Your task to perform on an android device: Set the phone to "Do not disturb". Image 0: 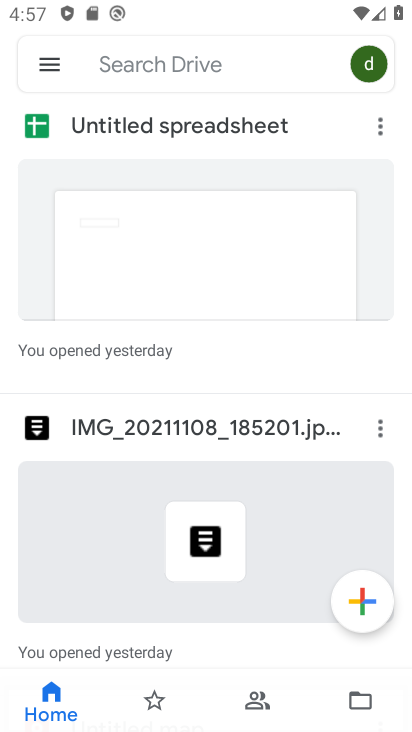
Step 0: press home button
Your task to perform on an android device: Set the phone to "Do not disturb". Image 1: 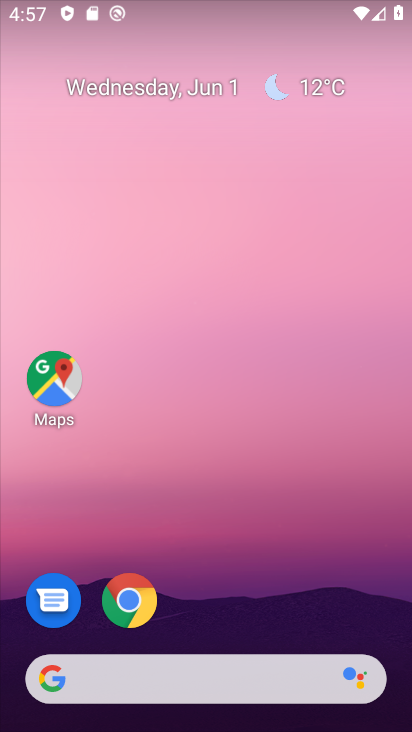
Step 1: drag from (268, 626) to (200, 3)
Your task to perform on an android device: Set the phone to "Do not disturb". Image 2: 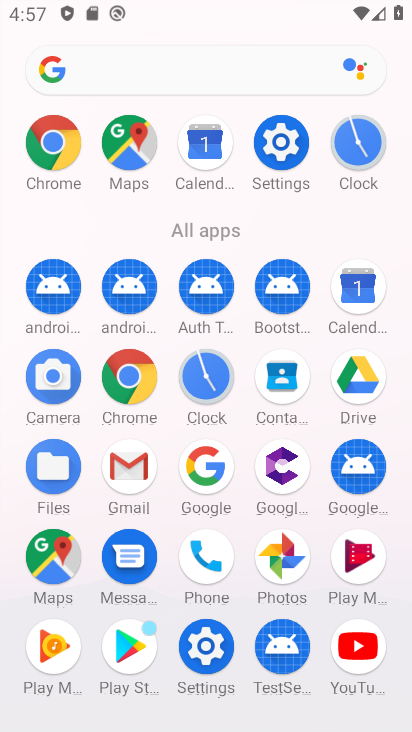
Step 2: click (280, 141)
Your task to perform on an android device: Set the phone to "Do not disturb". Image 3: 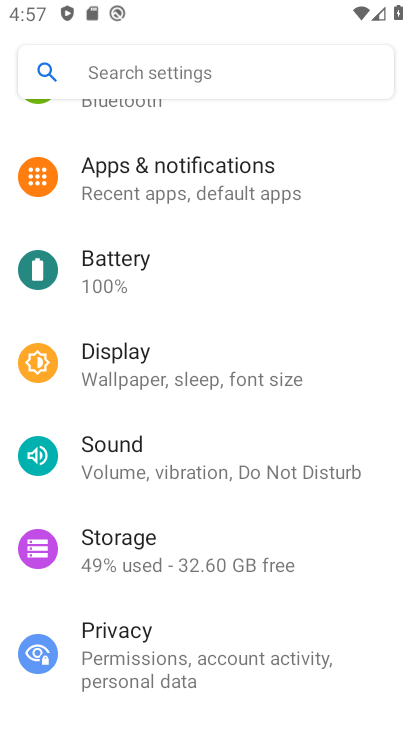
Step 3: click (177, 459)
Your task to perform on an android device: Set the phone to "Do not disturb". Image 4: 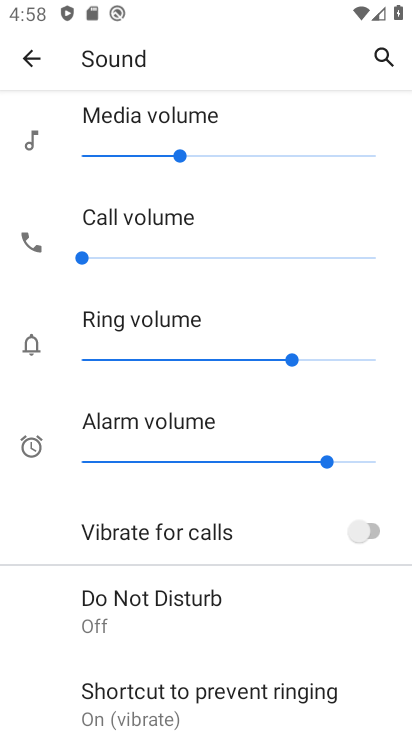
Step 4: click (198, 593)
Your task to perform on an android device: Set the phone to "Do not disturb". Image 5: 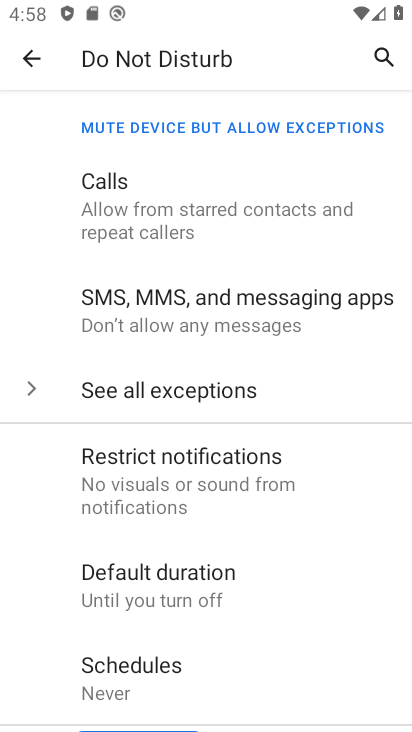
Step 5: drag from (141, 607) to (153, 506)
Your task to perform on an android device: Set the phone to "Do not disturb". Image 6: 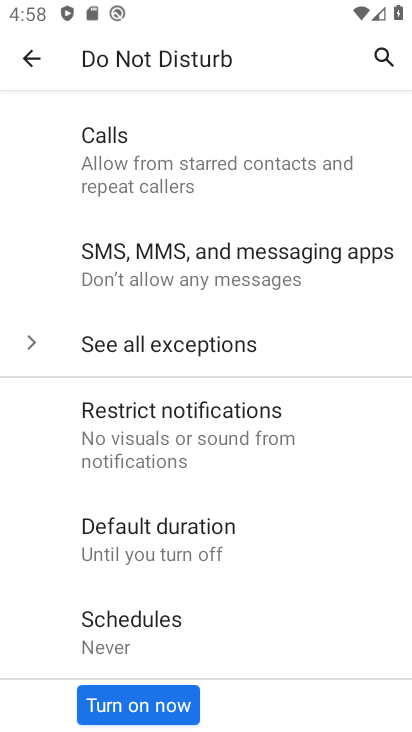
Step 6: click (159, 693)
Your task to perform on an android device: Set the phone to "Do not disturb". Image 7: 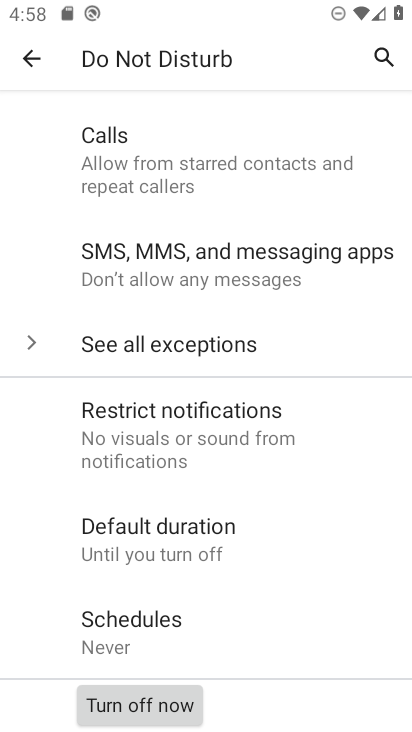
Step 7: task complete